Your task to perform on an android device: Open the calendar app, open the side menu, and click the "Day" option Image 0: 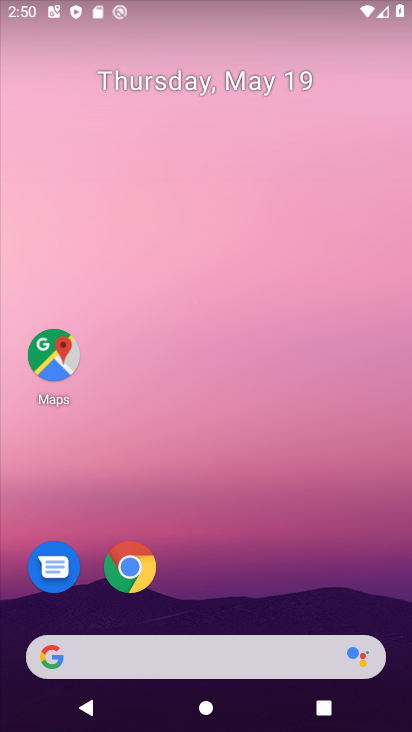
Step 0: drag from (250, 722) to (251, 208)
Your task to perform on an android device: Open the calendar app, open the side menu, and click the "Day" option Image 1: 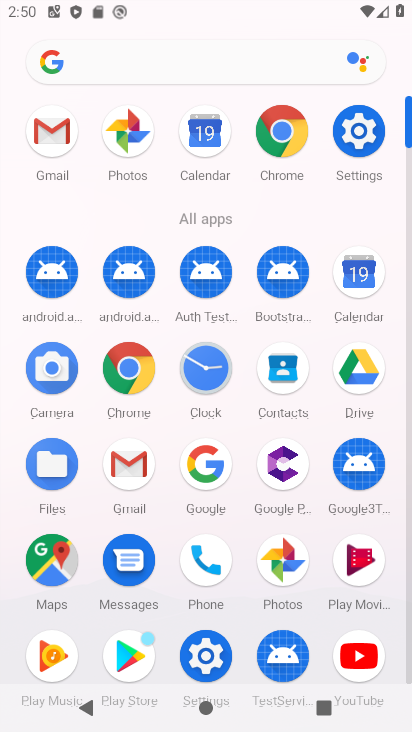
Step 1: click (354, 283)
Your task to perform on an android device: Open the calendar app, open the side menu, and click the "Day" option Image 2: 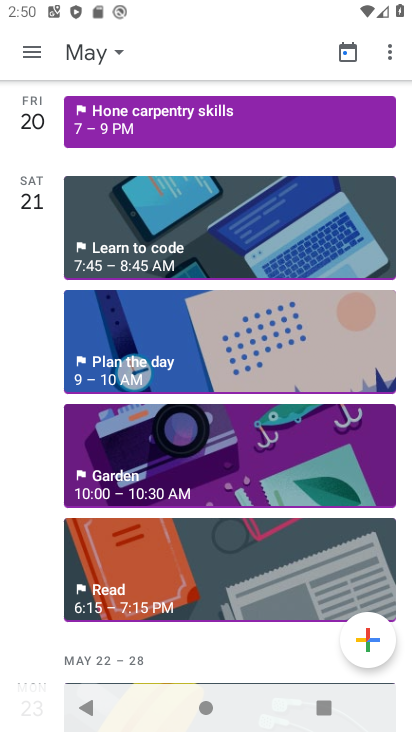
Step 2: click (30, 50)
Your task to perform on an android device: Open the calendar app, open the side menu, and click the "Day" option Image 3: 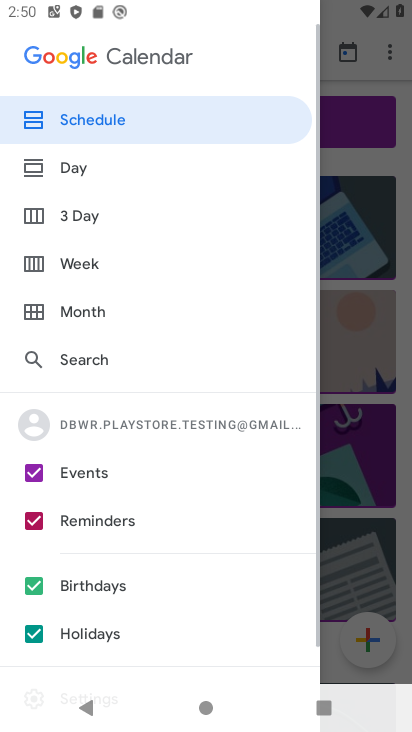
Step 3: click (71, 160)
Your task to perform on an android device: Open the calendar app, open the side menu, and click the "Day" option Image 4: 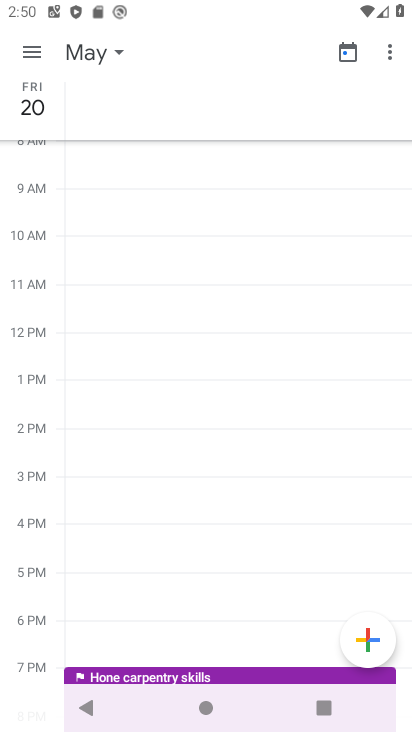
Step 4: task complete